Your task to perform on an android device: Go to CNN.com Image 0: 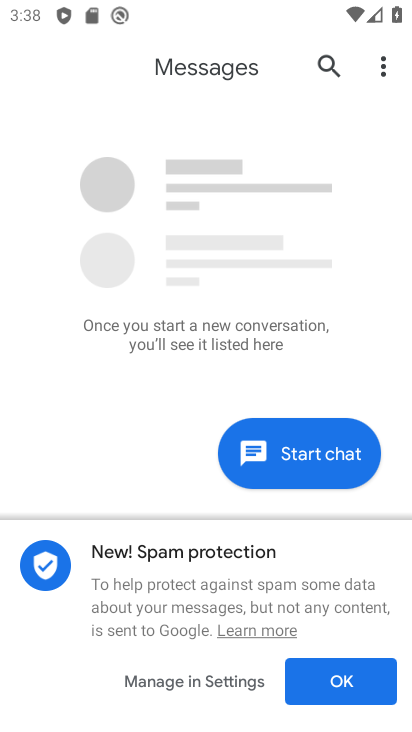
Step 0: press home button
Your task to perform on an android device: Go to CNN.com Image 1: 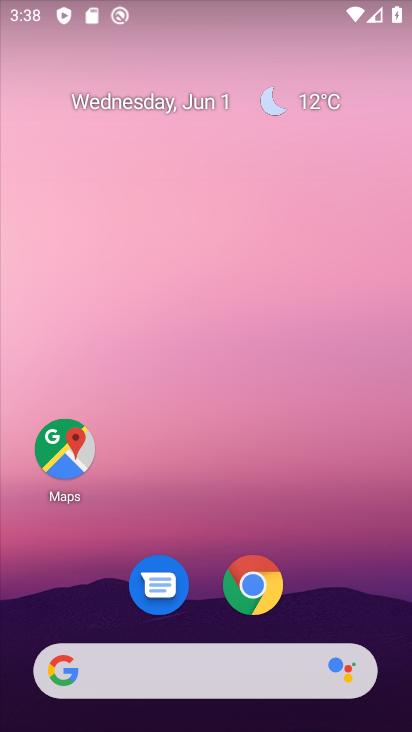
Step 1: click (170, 660)
Your task to perform on an android device: Go to CNN.com Image 2: 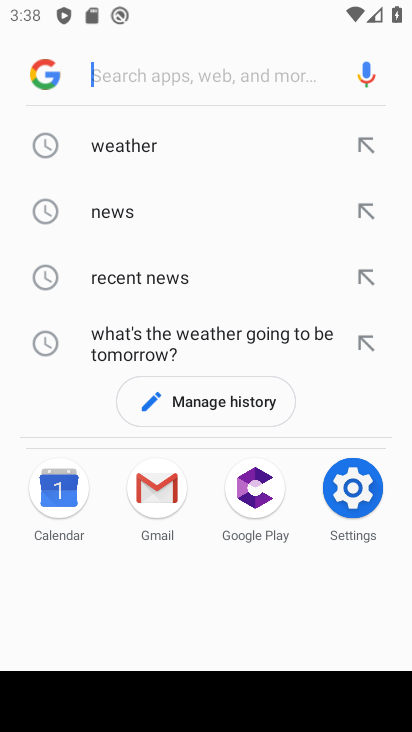
Step 2: type "cnn.com"
Your task to perform on an android device: Go to CNN.com Image 3: 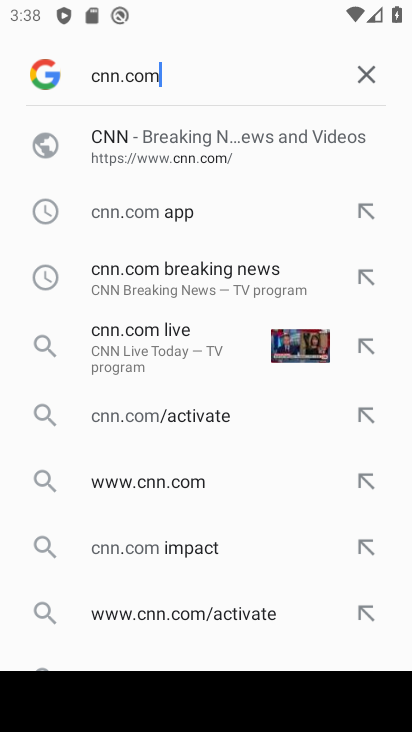
Step 3: click (124, 146)
Your task to perform on an android device: Go to CNN.com Image 4: 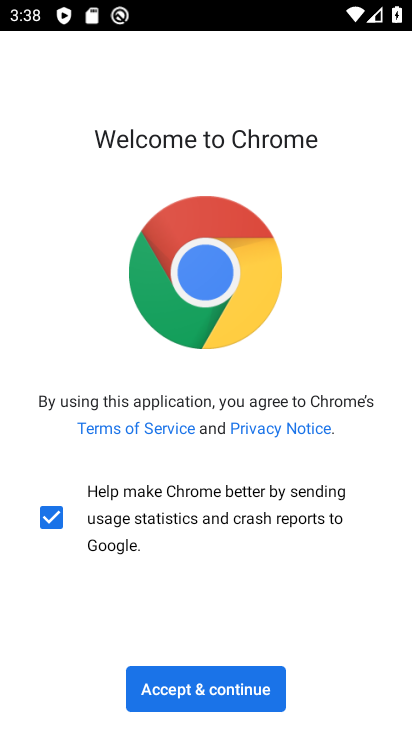
Step 4: click (181, 683)
Your task to perform on an android device: Go to CNN.com Image 5: 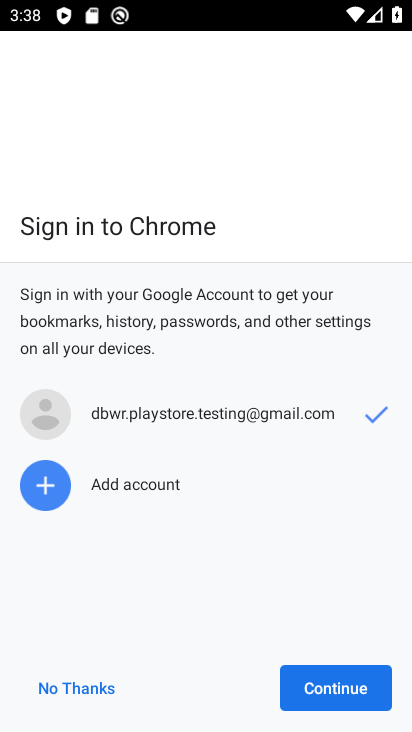
Step 5: click (324, 694)
Your task to perform on an android device: Go to CNN.com Image 6: 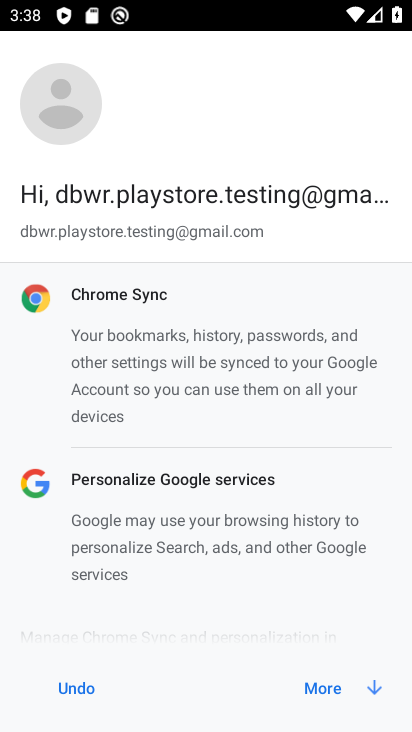
Step 6: click (349, 686)
Your task to perform on an android device: Go to CNN.com Image 7: 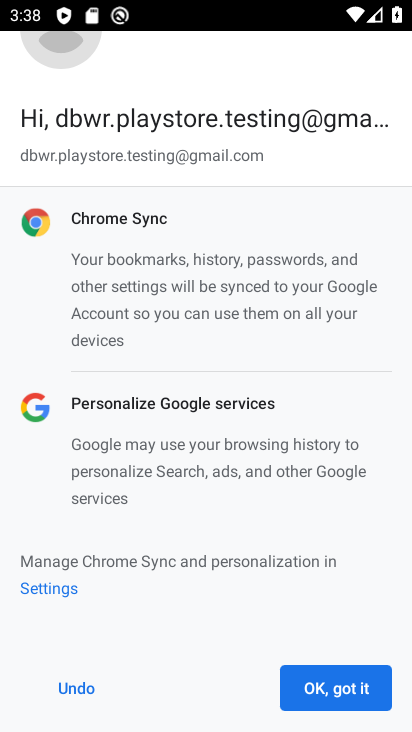
Step 7: click (349, 686)
Your task to perform on an android device: Go to CNN.com Image 8: 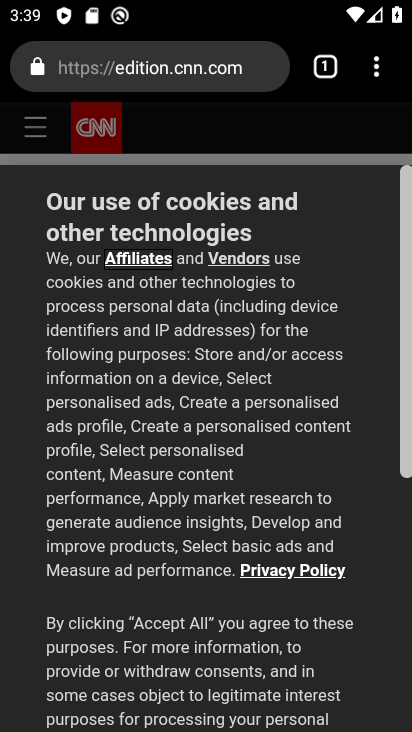
Step 8: drag from (246, 594) to (282, 217)
Your task to perform on an android device: Go to CNN.com Image 9: 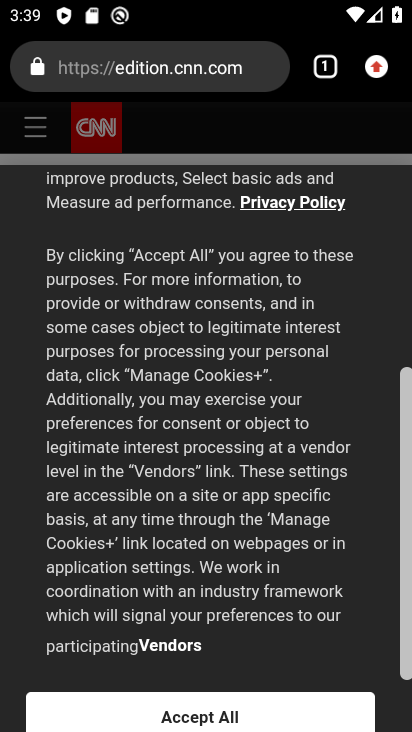
Step 9: click (239, 712)
Your task to perform on an android device: Go to CNN.com Image 10: 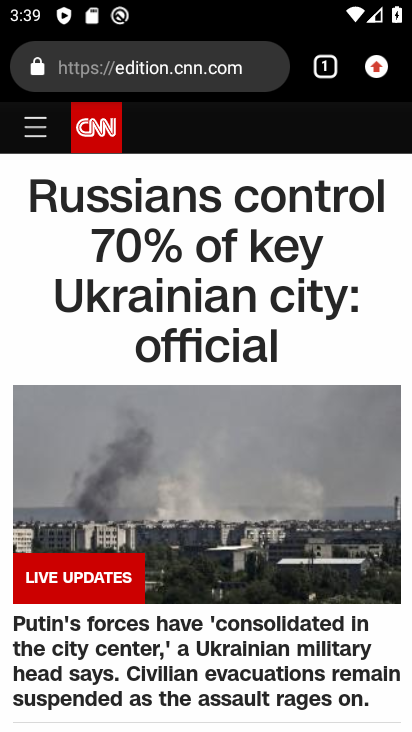
Step 10: task complete